Your task to perform on an android device: Open calendar and show me the fourth week of next month Image 0: 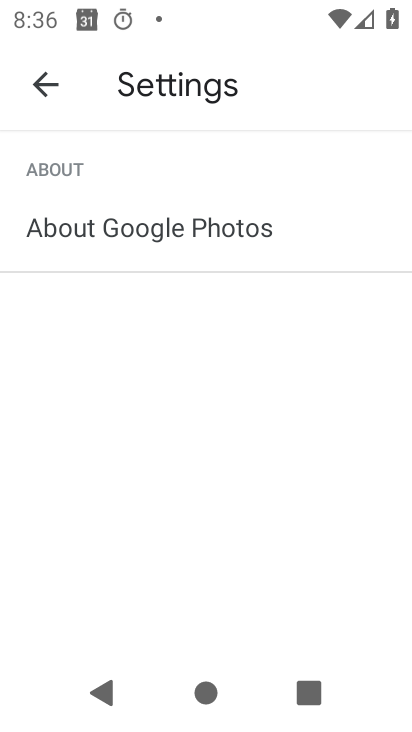
Step 0: press home button
Your task to perform on an android device: Open calendar and show me the fourth week of next month Image 1: 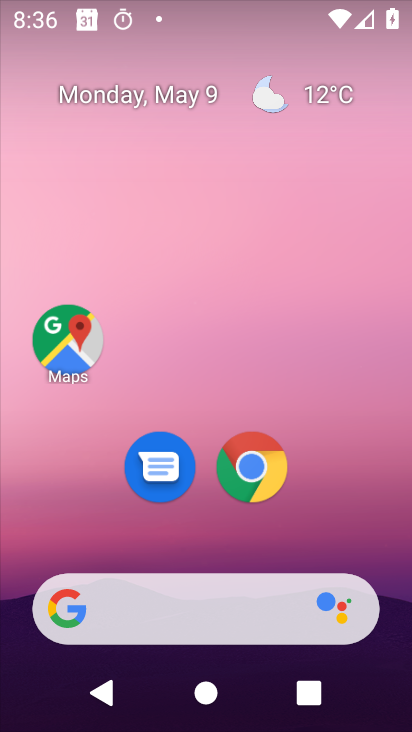
Step 1: drag from (373, 550) to (340, 25)
Your task to perform on an android device: Open calendar and show me the fourth week of next month Image 2: 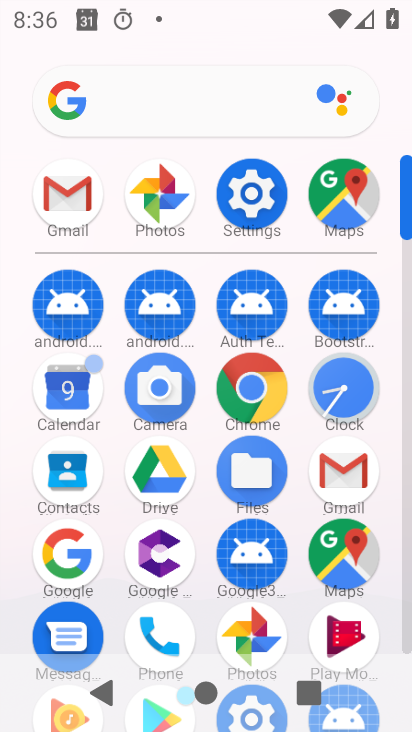
Step 2: click (78, 393)
Your task to perform on an android device: Open calendar and show me the fourth week of next month Image 3: 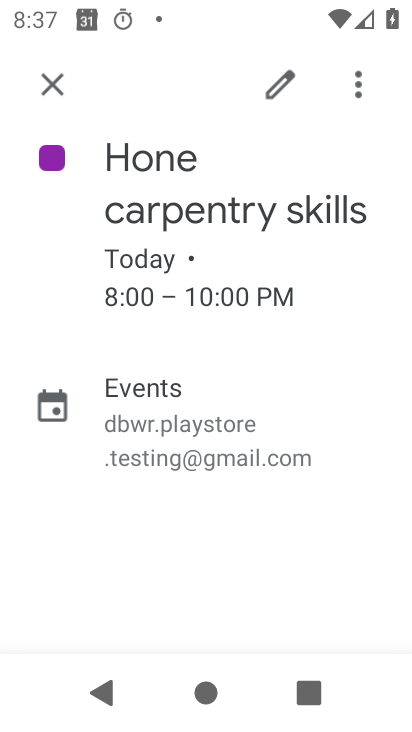
Step 3: click (51, 87)
Your task to perform on an android device: Open calendar and show me the fourth week of next month Image 4: 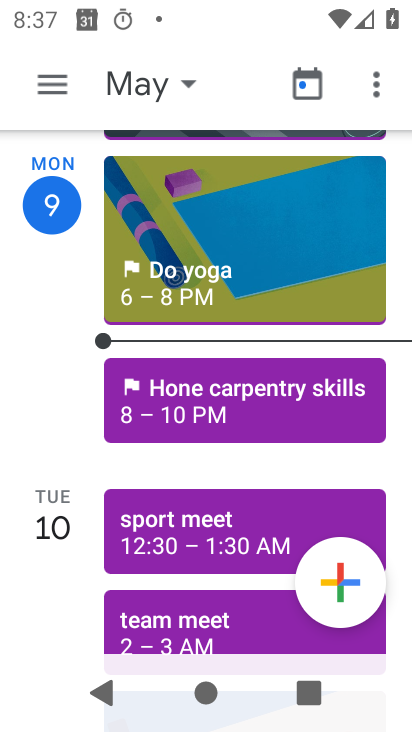
Step 4: click (184, 83)
Your task to perform on an android device: Open calendar and show me the fourth week of next month Image 5: 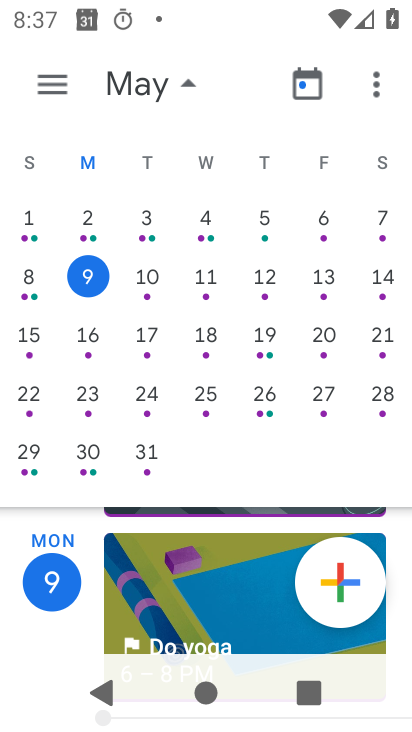
Step 5: drag from (329, 297) to (18, 274)
Your task to perform on an android device: Open calendar and show me the fourth week of next month Image 6: 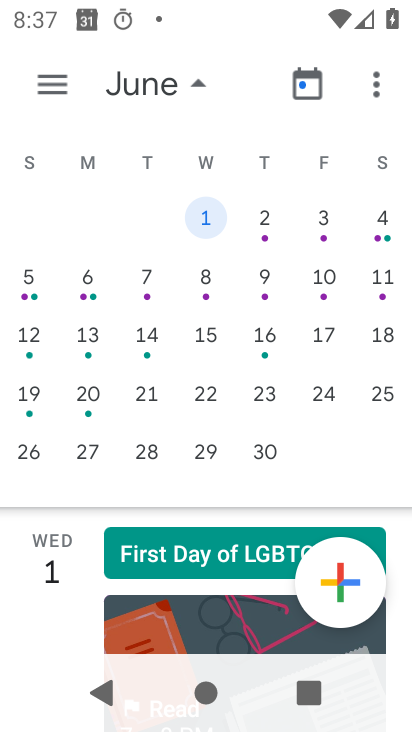
Step 6: click (56, 92)
Your task to perform on an android device: Open calendar and show me the fourth week of next month Image 7: 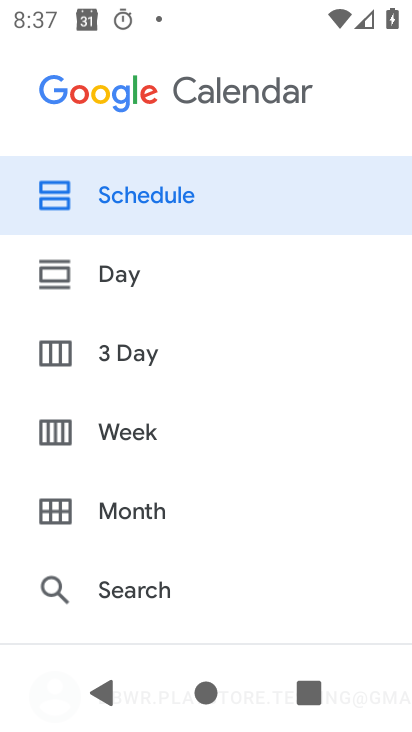
Step 7: click (132, 442)
Your task to perform on an android device: Open calendar and show me the fourth week of next month Image 8: 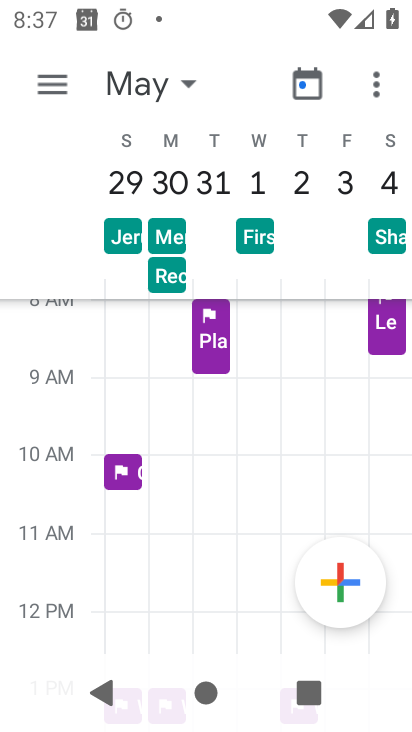
Step 8: task complete